Your task to perform on an android device: turn off wifi Image 0: 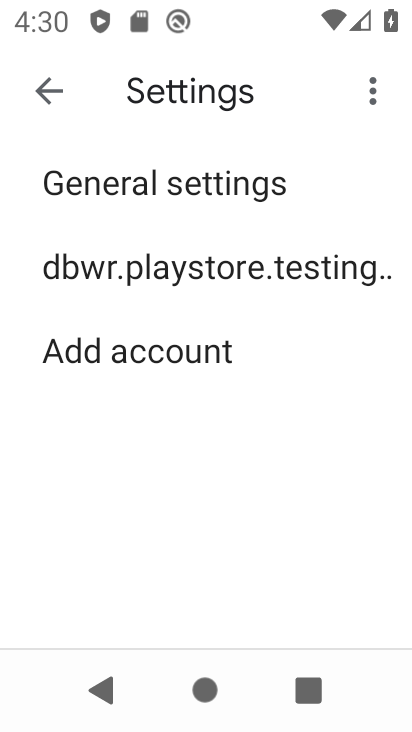
Step 0: press back button
Your task to perform on an android device: turn off wifi Image 1: 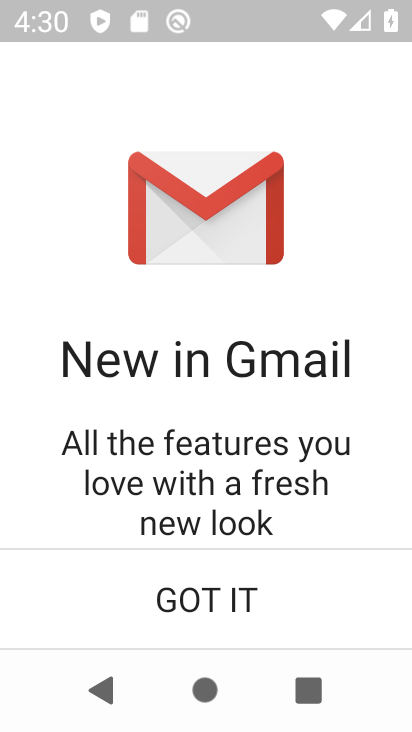
Step 1: press back button
Your task to perform on an android device: turn off wifi Image 2: 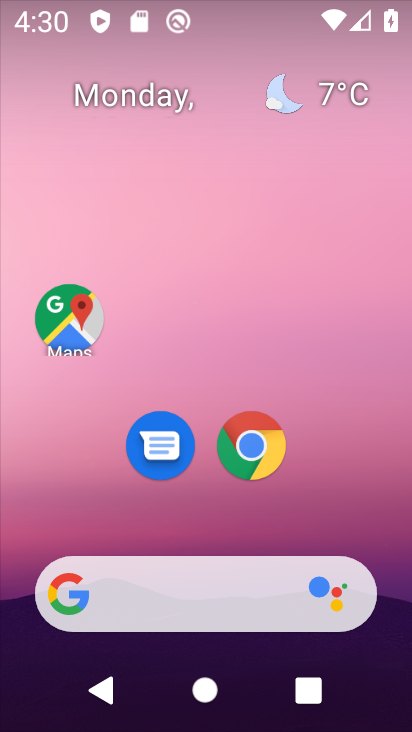
Step 2: drag from (281, 541) to (310, 87)
Your task to perform on an android device: turn off wifi Image 3: 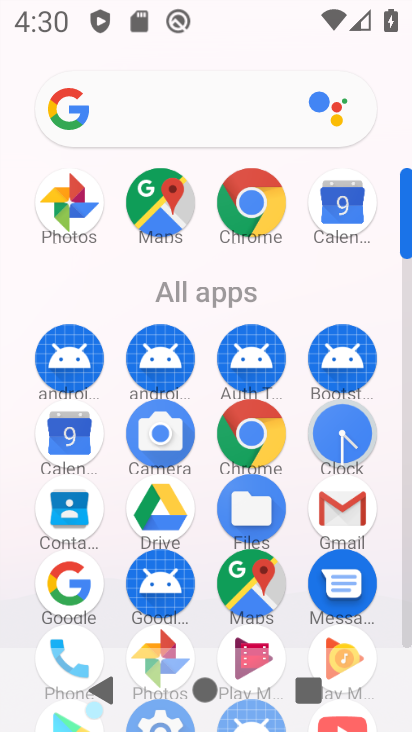
Step 3: drag from (217, 571) to (229, 427)
Your task to perform on an android device: turn off wifi Image 4: 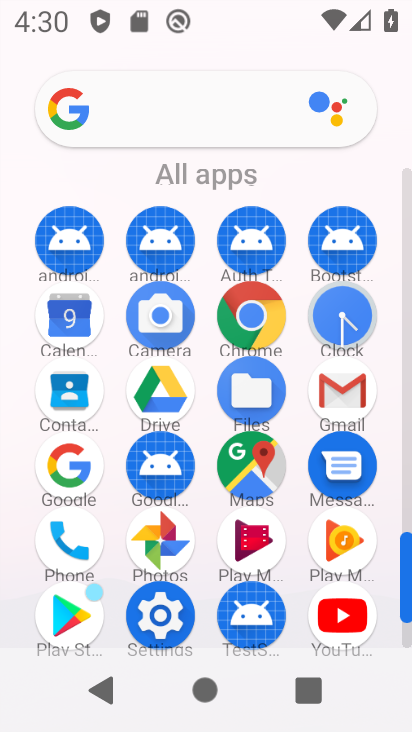
Step 4: click (162, 624)
Your task to perform on an android device: turn off wifi Image 5: 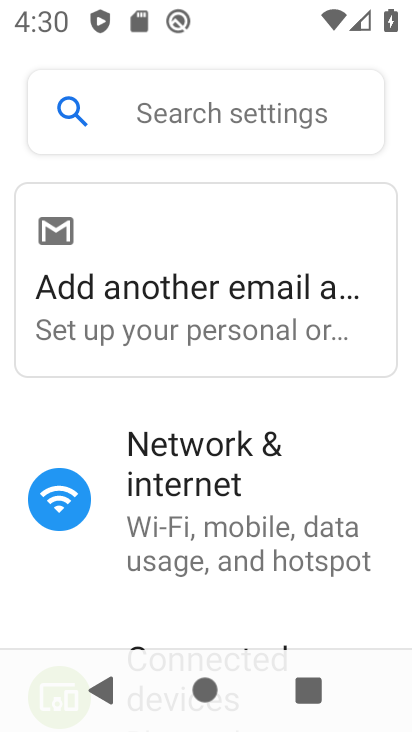
Step 5: click (255, 480)
Your task to perform on an android device: turn off wifi Image 6: 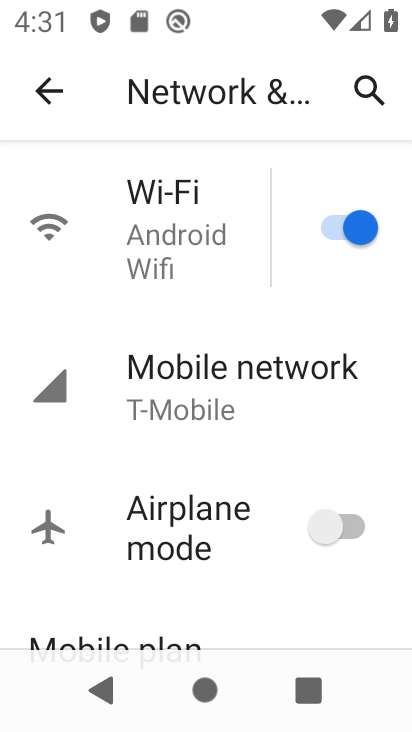
Step 6: click (339, 258)
Your task to perform on an android device: turn off wifi Image 7: 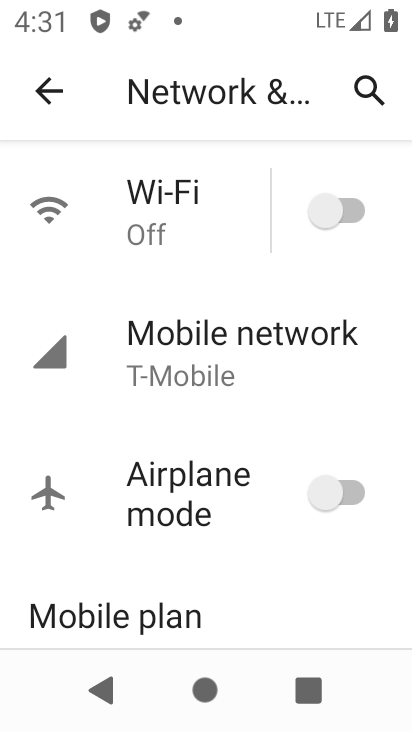
Step 7: task complete